Your task to perform on an android device: Search for Italian restaurants on Maps Image 0: 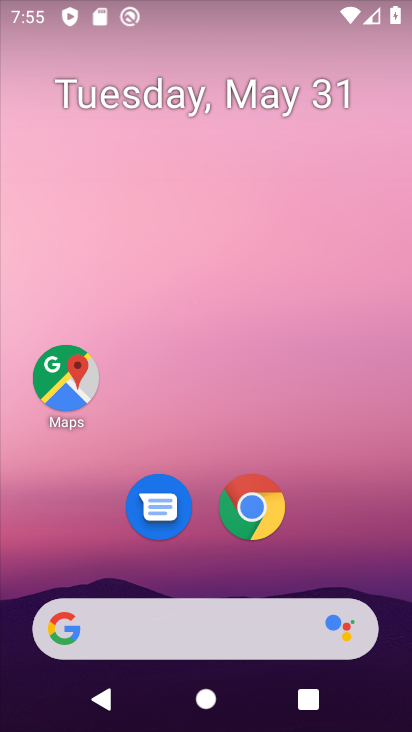
Step 0: click (75, 381)
Your task to perform on an android device: Search for Italian restaurants on Maps Image 1: 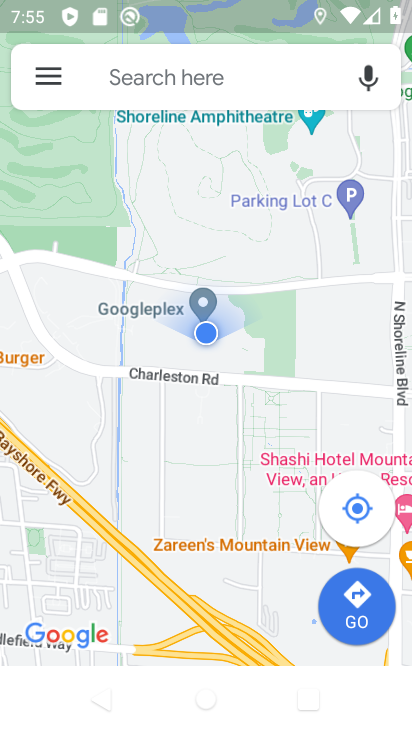
Step 1: click (215, 69)
Your task to perform on an android device: Search for Italian restaurants on Maps Image 2: 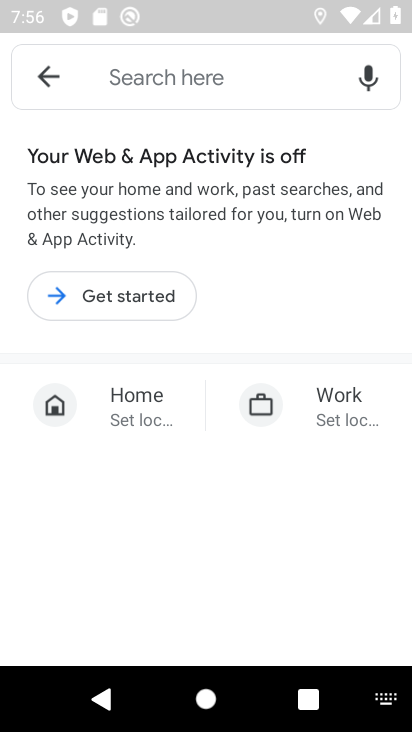
Step 2: click (240, 67)
Your task to perform on an android device: Search for Italian restaurants on Maps Image 3: 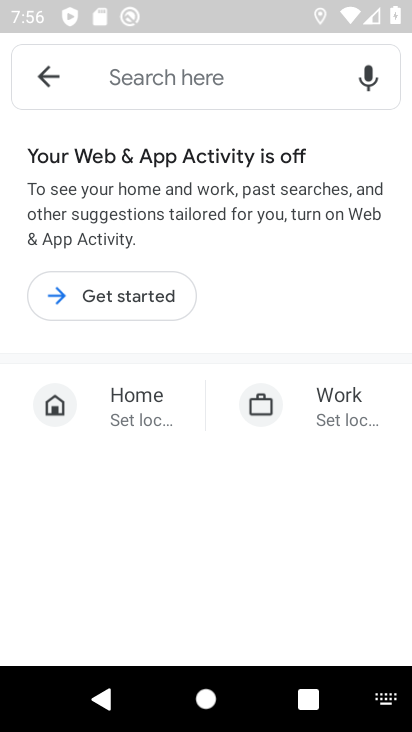
Step 3: type "Italian restaurants"
Your task to perform on an android device: Search for Italian restaurants on Maps Image 4: 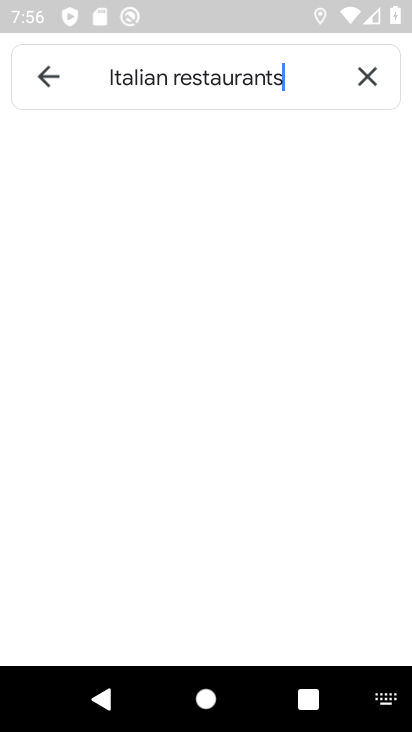
Step 4: type ""
Your task to perform on an android device: Search for Italian restaurants on Maps Image 5: 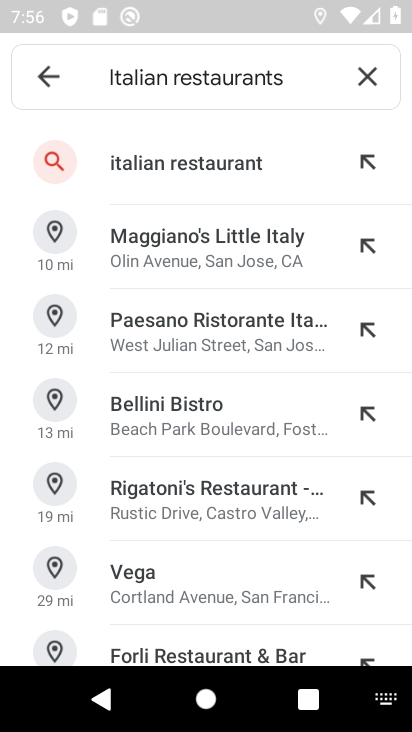
Step 5: click (168, 163)
Your task to perform on an android device: Search for Italian restaurants on Maps Image 6: 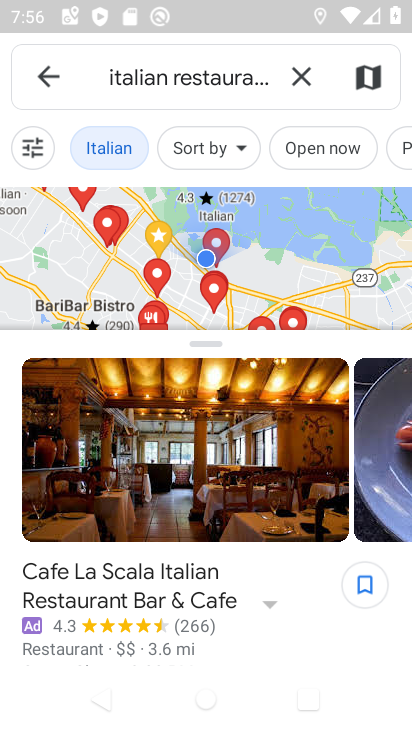
Step 6: task complete